Your task to perform on an android device: Open settings Image 0: 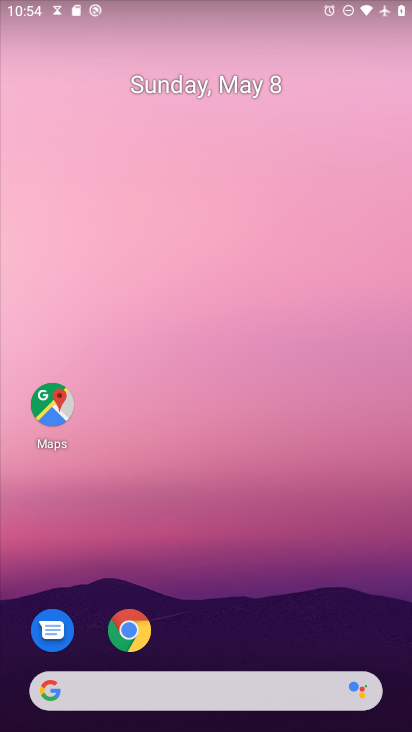
Step 0: drag from (248, 700) to (349, 53)
Your task to perform on an android device: Open settings Image 1: 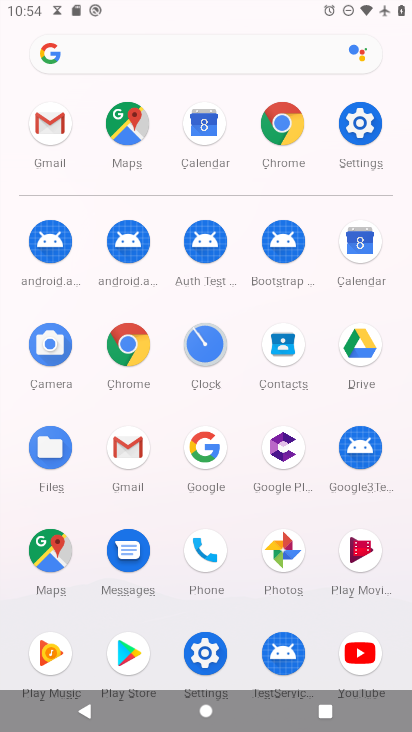
Step 1: click (365, 123)
Your task to perform on an android device: Open settings Image 2: 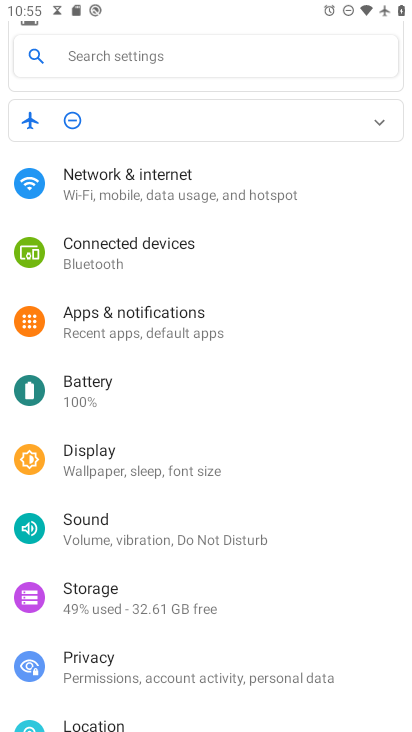
Step 2: task complete